Your task to perform on an android device: turn on wifi Image 0: 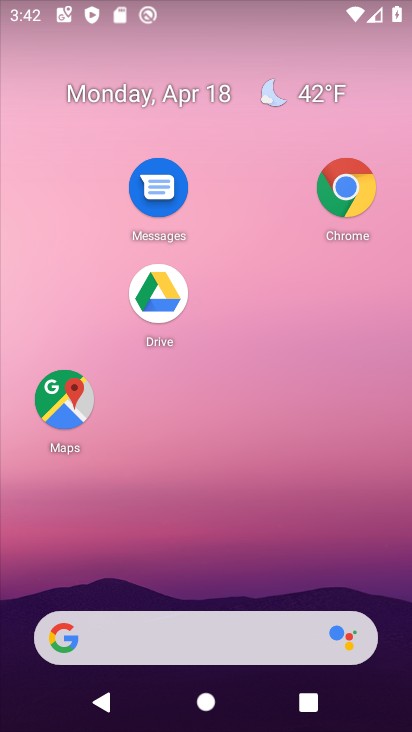
Step 0: drag from (201, 595) to (271, 40)
Your task to perform on an android device: turn on wifi Image 1: 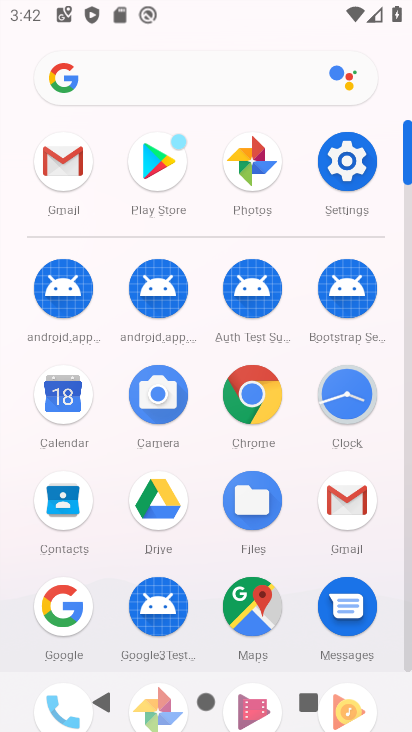
Step 1: click (350, 171)
Your task to perform on an android device: turn on wifi Image 2: 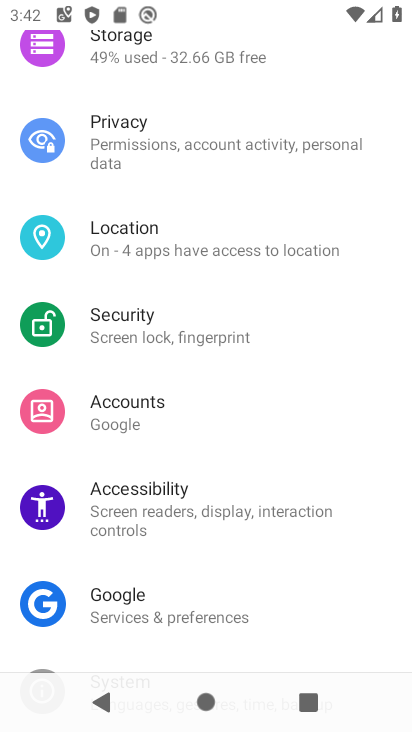
Step 2: drag from (241, 220) to (237, 360)
Your task to perform on an android device: turn on wifi Image 3: 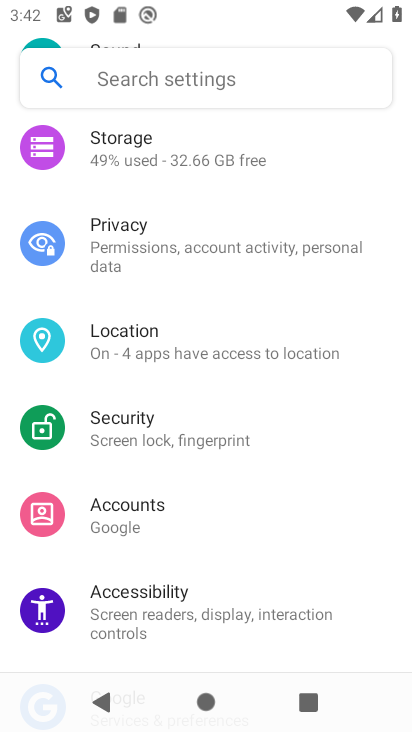
Step 3: drag from (224, 229) to (230, 335)
Your task to perform on an android device: turn on wifi Image 4: 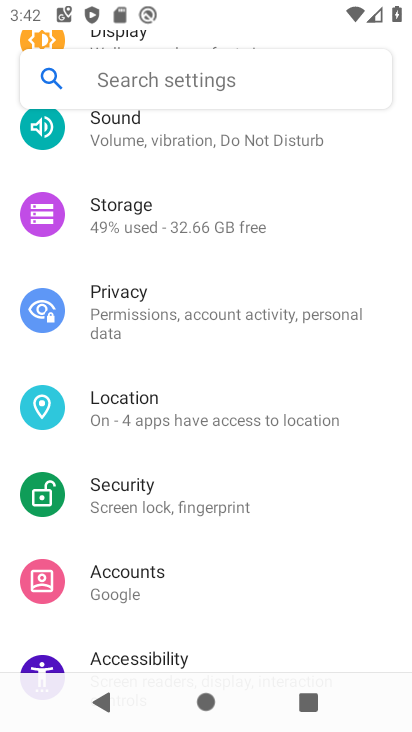
Step 4: drag from (215, 191) to (227, 290)
Your task to perform on an android device: turn on wifi Image 5: 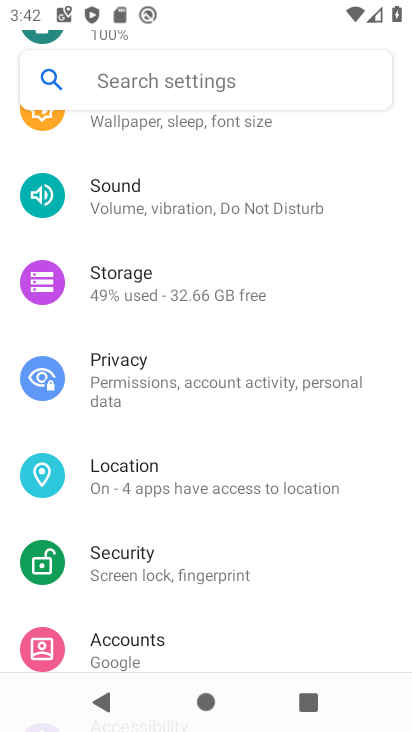
Step 5: drag from (203, 168) to (232, 271)
Your task to perform on an android device: turn on wifi Image 6: 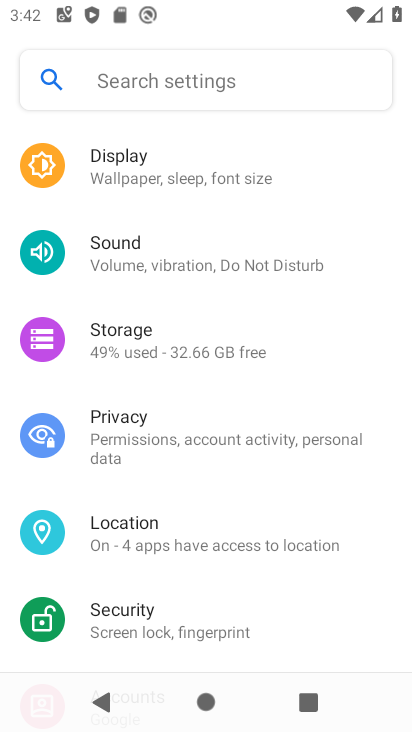
Step 6: drag from (195, 145) to (238, 286)
Your task to perform on an android device: turn on wifi Image 7: 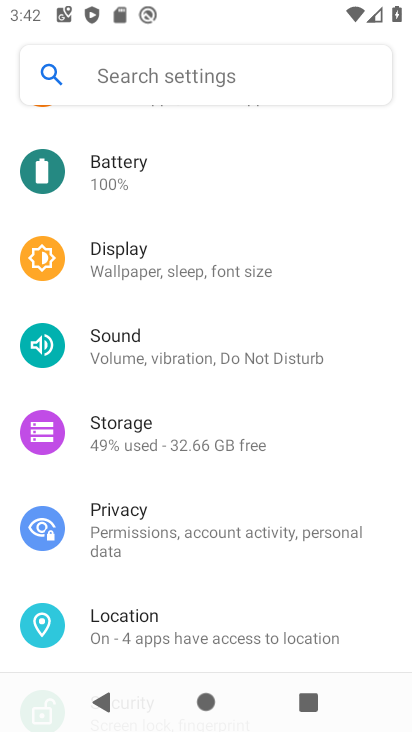
Step 7: drag from (218, 207) to (228, 317)
Your task to perform on an android device: turn on wifi Image 8: 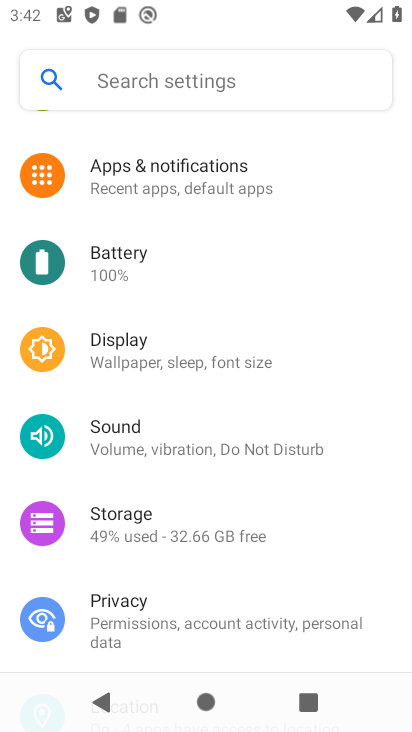
Step 8: drag from (210, 247) to (218, 339)
Your task to perform on an android device: turn on wifi Image 9: 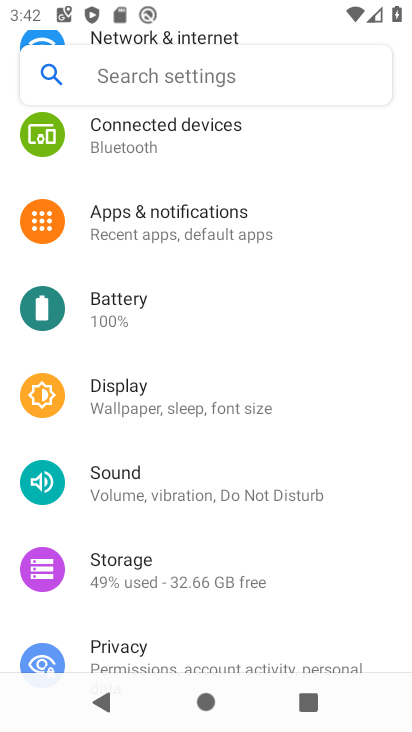
Step 9: drag from (206, 193) to (225, 283)
Your task to perform on an android device: turn on wifi Image 10: 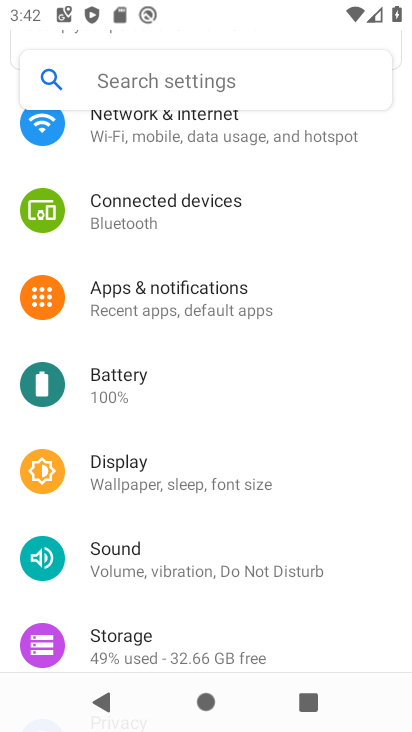
Step 10: drag from (218, 237) to (230, 321)
Your task to perform on an android device: turn on wifi Image 11: 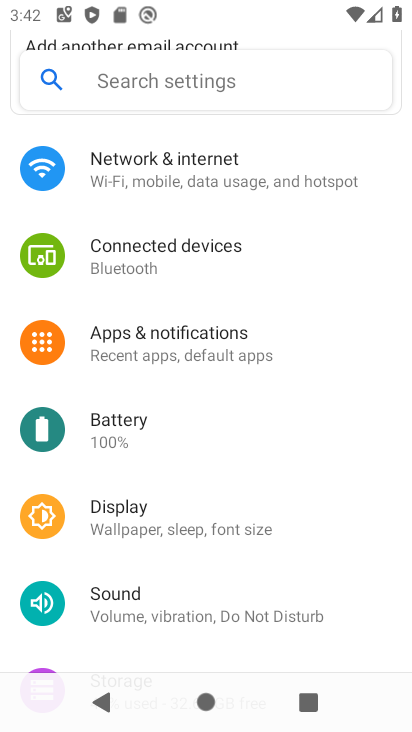
Step 11: drag from (186, 210) to (216, 306)
Your task to perform on an android device: turn on wifi Image 12: 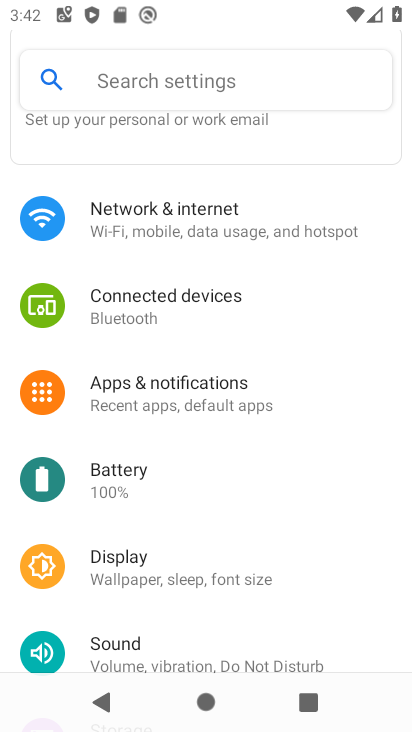
Step 12: click (201, 213)
Your task to perform on an android device: turn on wifi Image 13: 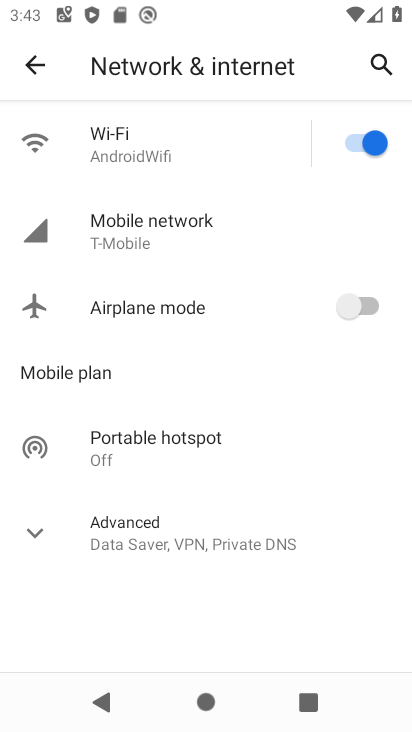
Step 13: task complete